Your task to perform on an android device: toggle notification dots Image 0: 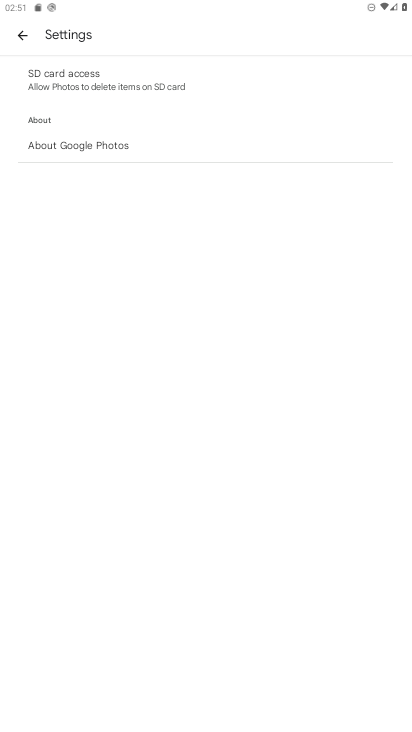
Step 0: press home button
Your task to perform on an android device: toggle notification dots Image 1: 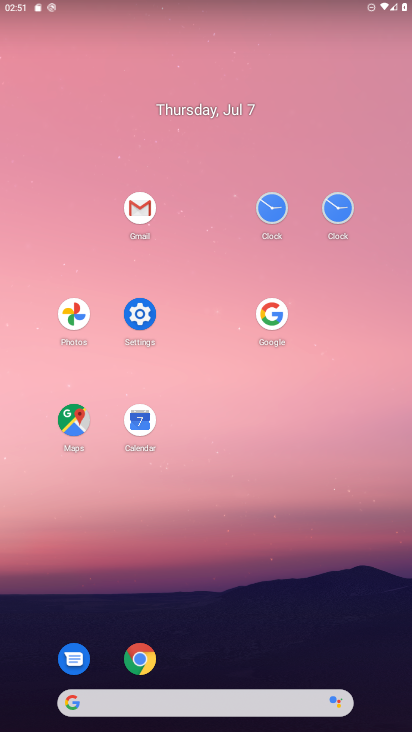
Step 1: click (145, 305)
Your task to perform on an android device: toggle notification dots Image 2: 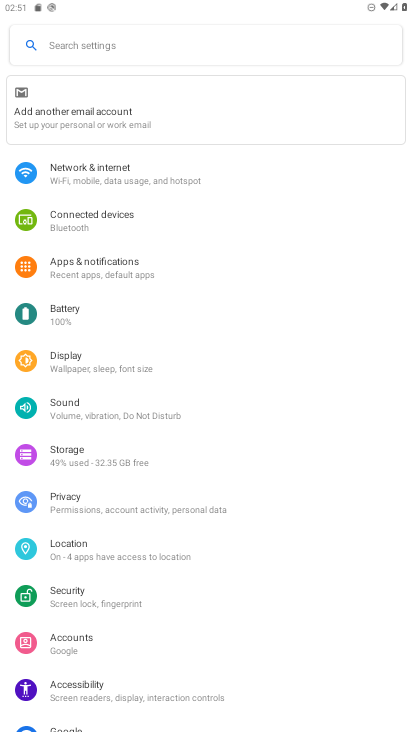
Step 2: click (149, 276)
Your task to perform on an android device: toggle notification dots Image 3: 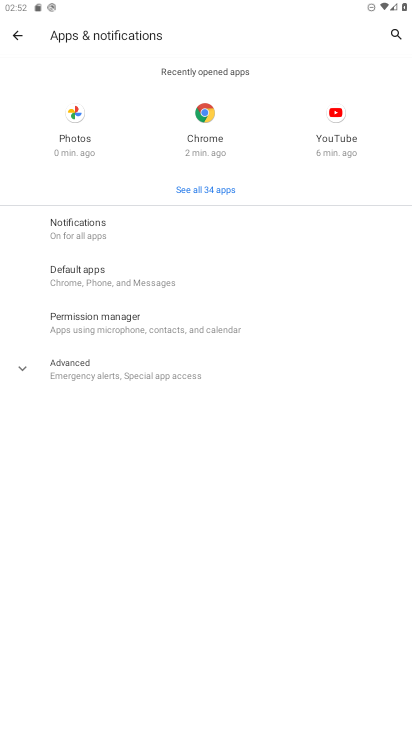
Step 3: click (138, 364)
Your task to perform on an android device: toggle notification dots Image 4: 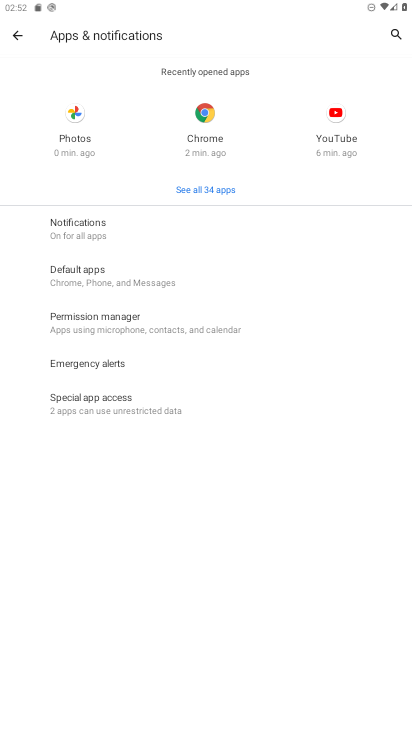
Step 4: click (90, 226)
Your task to perform on an android device: toggle notification dots Image 5: 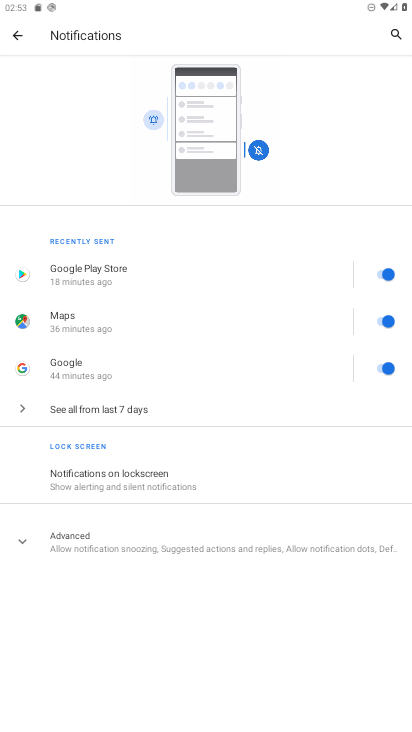
Step 5: click (94, 538)
Your task to perform on an android device: toggle notification dots Image 6: 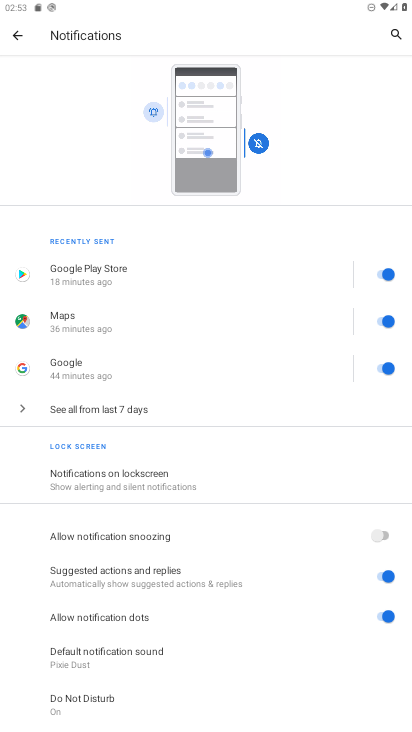
Step 6: click (380, 614)
Your task to perform on an android device: toggle notification dots Image 7: 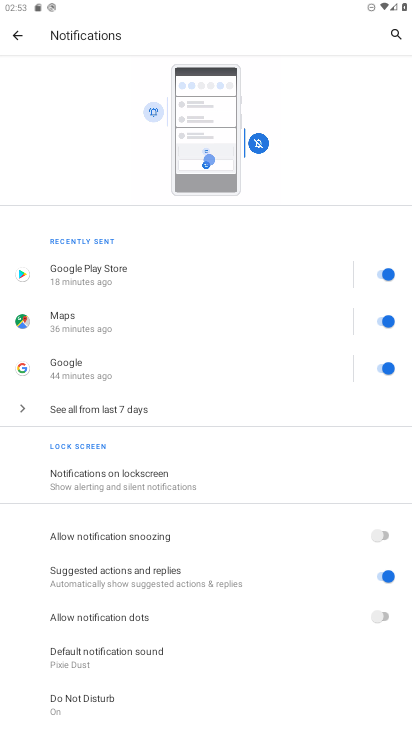
Step 7: task complete